Your task to perform on an android device: find photos in the google photos app Image 0: 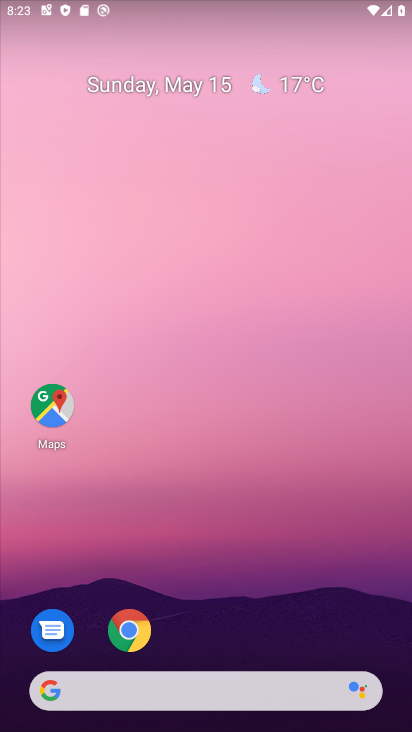
Step 0: drag from (341, 560) to (289, 41)
Your task to perform on an android device: find photos in the google photos app Image 1: 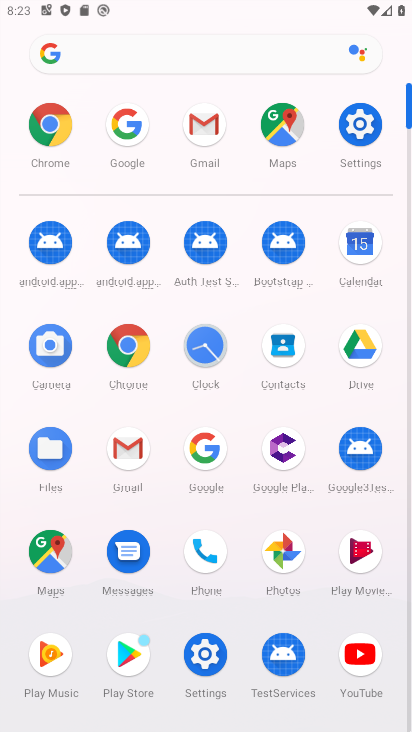
Step 1: click (292, 559)
Your task to perform on an android device: find photos in the google photos app Image 2: 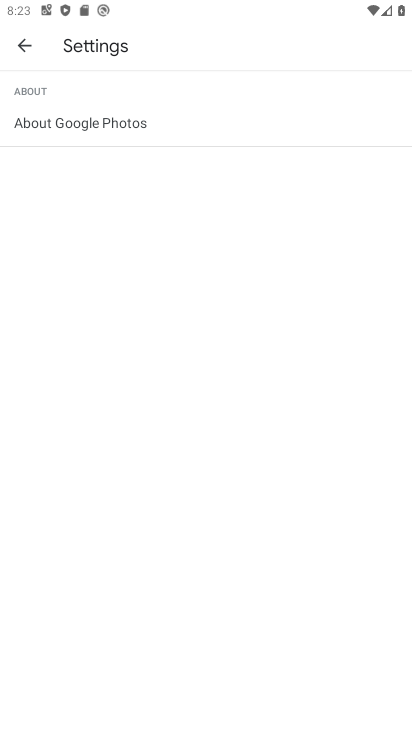
Step 2: click (31, 55)
Your task to perform on an android device: find photos in the google photos app Image 3: 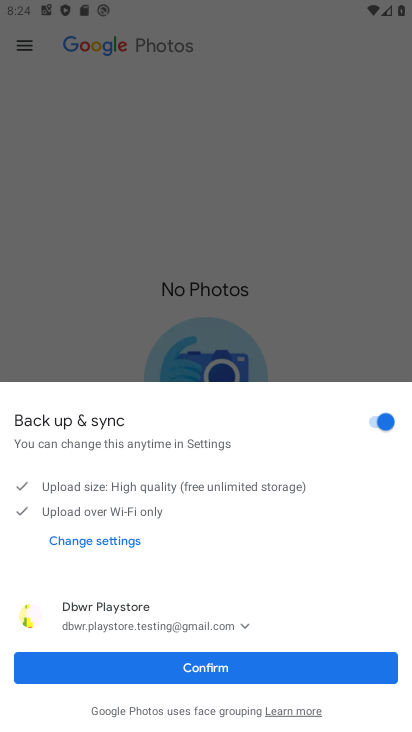
Step 3: click (251, 673)
Your task to perform on an android device: find photos in the google photos app Image 4: 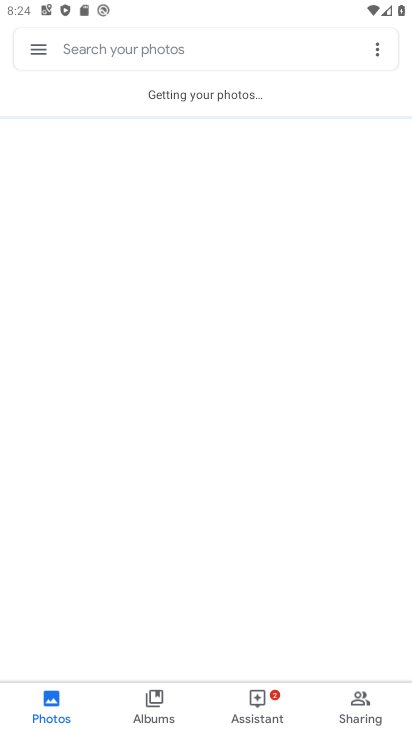
Step 4: click (58, 713)
Your task to perform on an android device: find photos in the google photos app Image 5: 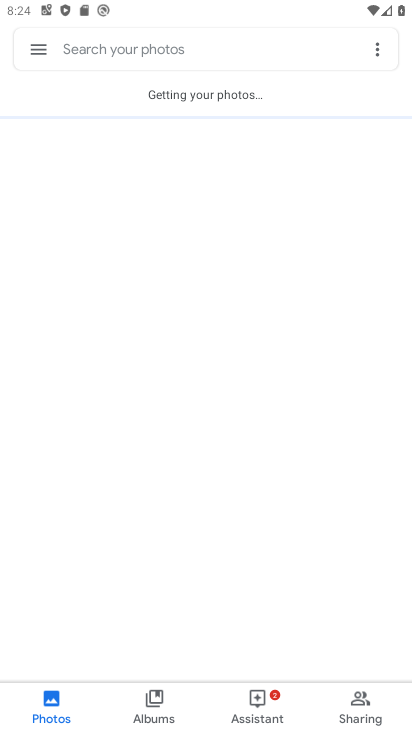
Step 5: click (58, 713)
Your task to perform on an android device: find photos in the google photos app Image 6: 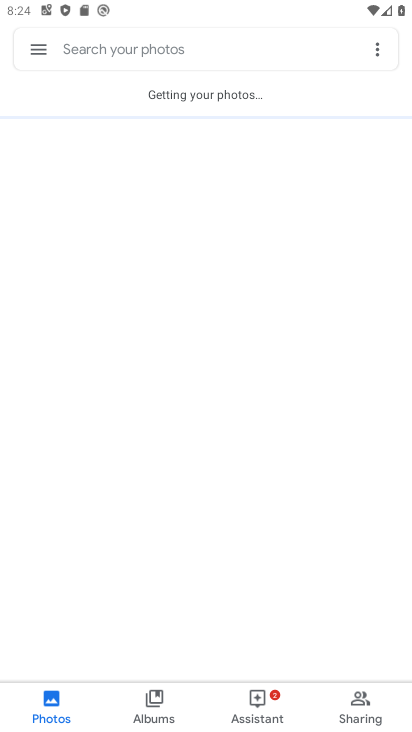
Step 6: click (58, 713)
Your task to perform on an android device: find photos in the google photos app Image 7: 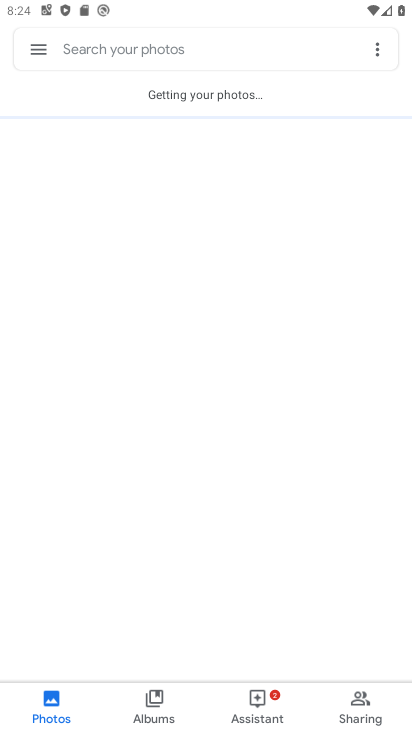
Step 7: click (33, 716)
Your task to perform on an android device: find photos in the google photos app Image 8: 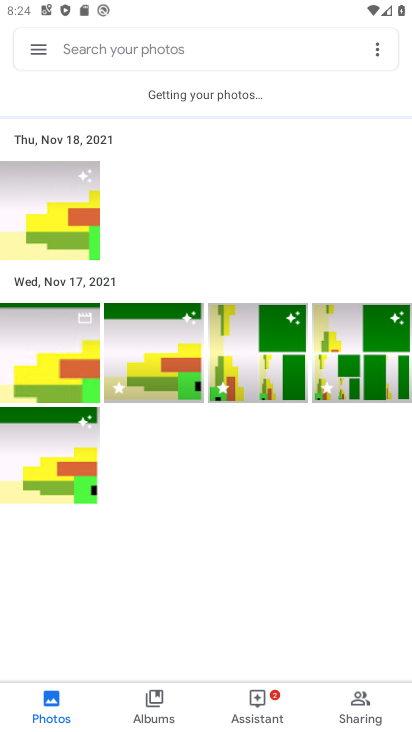
Step 8: task complete